Your task to perform on an android device: Go to battery settings Image 0: 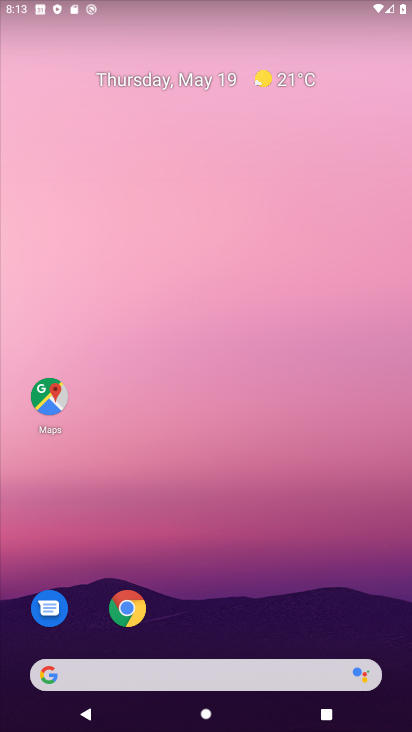
Step 0: drag from (254, 586) to (188, 60)
Your task to perform on an android device: Go to battery settings Image 1: 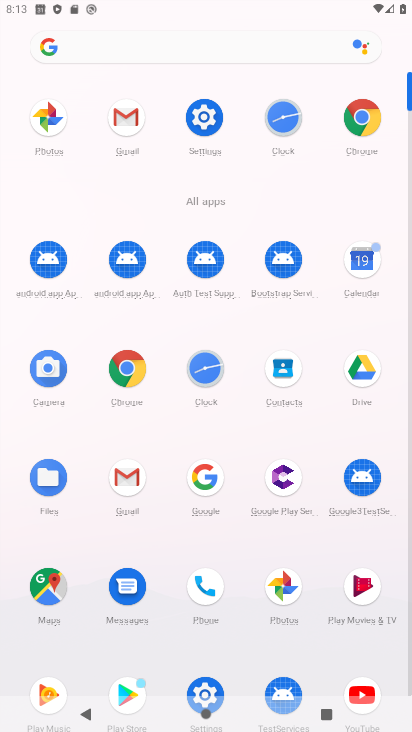
Step 1: click (200, 115)
Your task to perform on an android device: Go to battery settings Image 2: 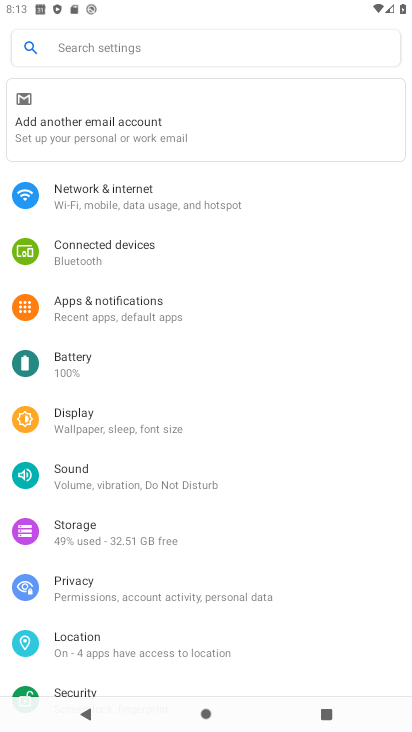
Step 2: click (75, 356)
Your task to perform on an android device: Go to battery settings Image 3: 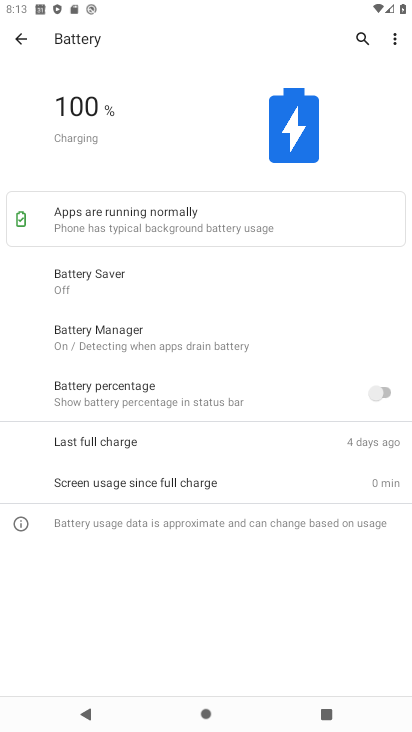
Step 3: task complete